Your task to perform on an android device: turn off location history Image 0: 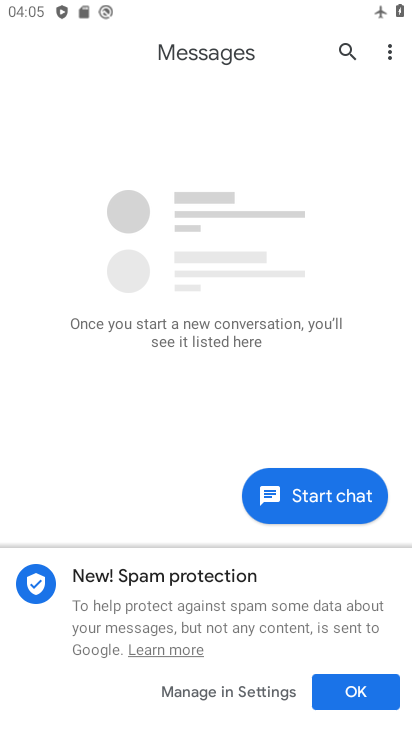
Step 0: press home button
Your task to perform on an android device: turn off location history Image 1: 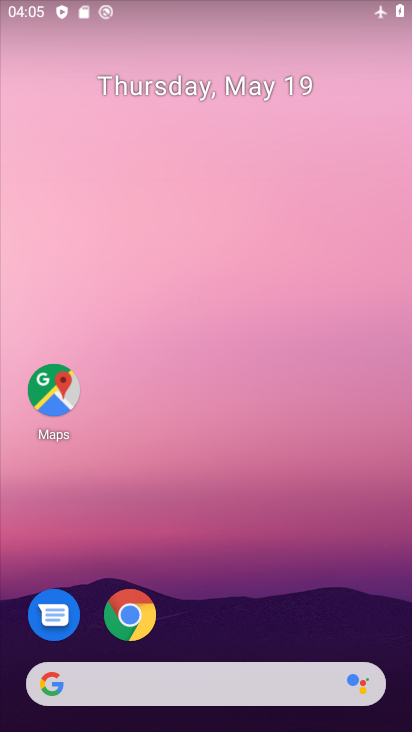
Step 1: click (49, 392)
Your task to perform on an android device: turn off location history Image 2: 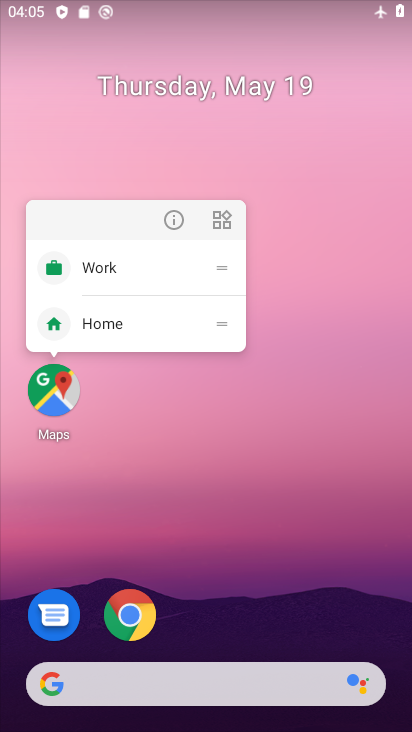
Step 2: click (50, 381)
Your task to perform on an android device: turn off location history Image 3: 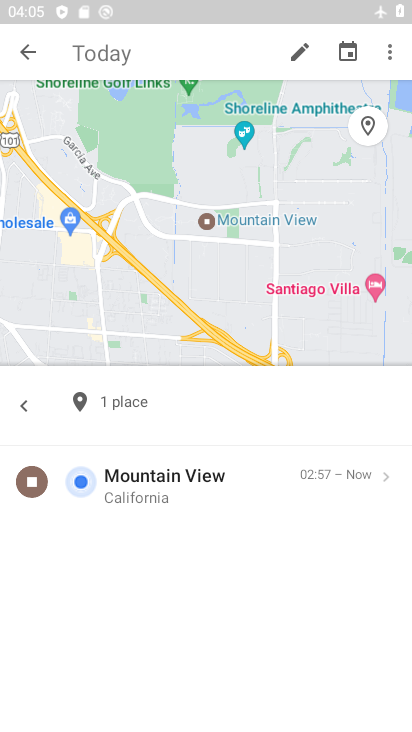
Step 3: click (388, 60)
Your task to perform on an android device: turn off location history Image 4: 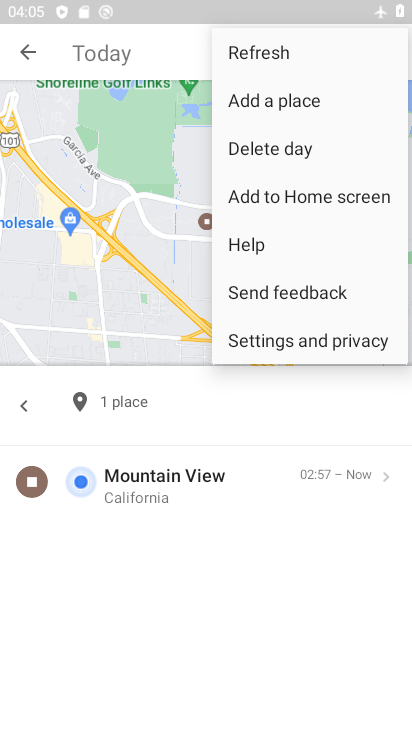
Step 4: click (286, 331)
Your task to perform on an android device: turn off location history Image 5: 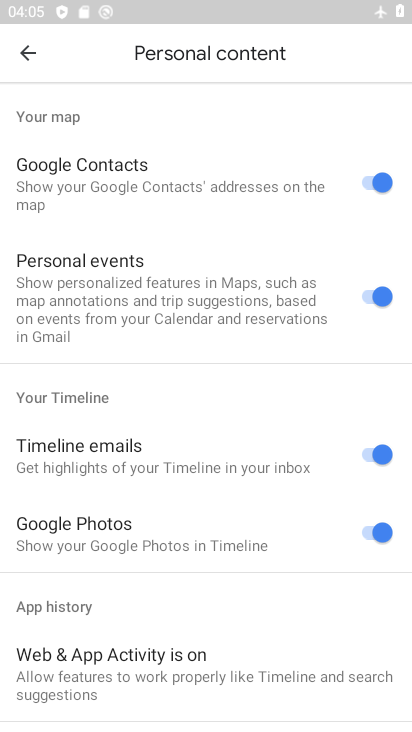
Step 5: drag from (132, 561) to (117, 120)
Your task to perform on an android device: turn off location history Image 6: 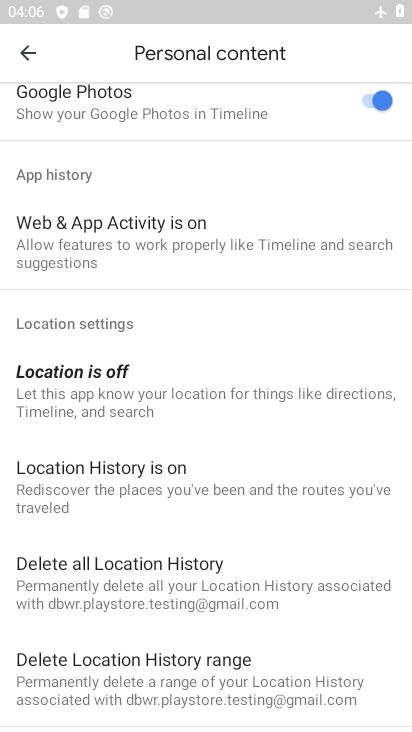
Step 6: click (84, 462)
Your task to perform on an android device: turn off location history Image 7: 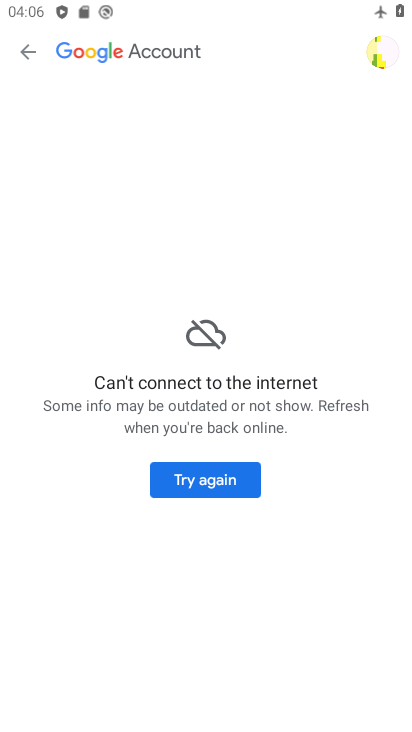
Step 7: task complete